Your task to perform on an android device: all mails in gmail Image 0: 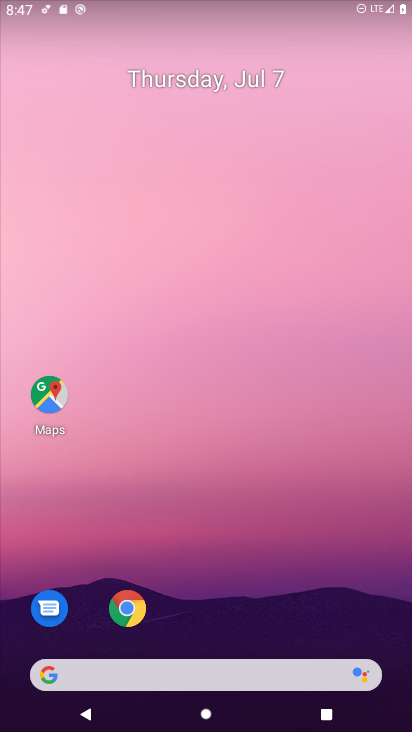
Step 0: drag from (366, 631) to (345, 74)
Your task to perform on an android device: all mails in gmail Image 1: 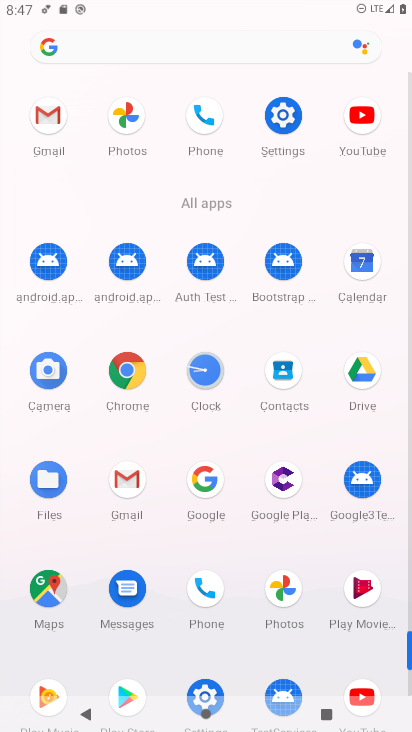
Step 1: click (124, 479)
Your task to perform on an android device: all mails in gmail Image 2: 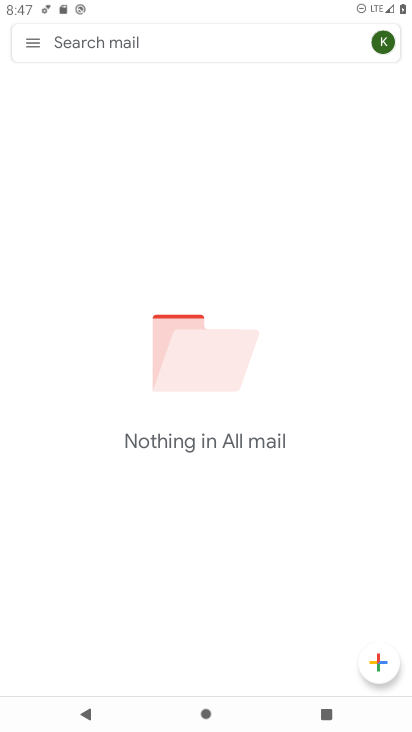
Step 2: task complete